Your task to perform on an android device: What is the news today? Image 0: 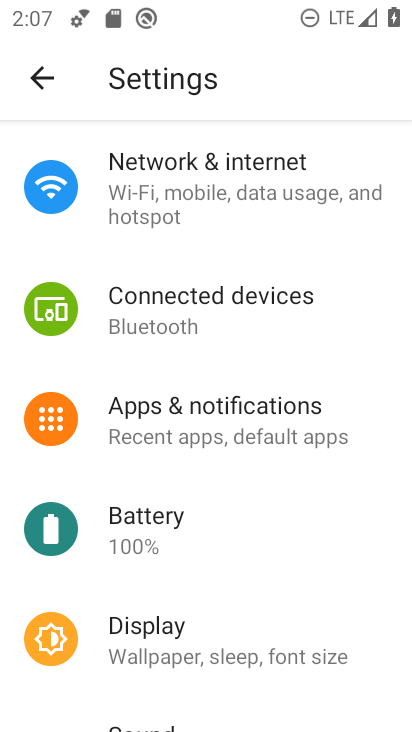
Step 0: press home button
Your task to perform on an android device: What is the news today? Image 1: 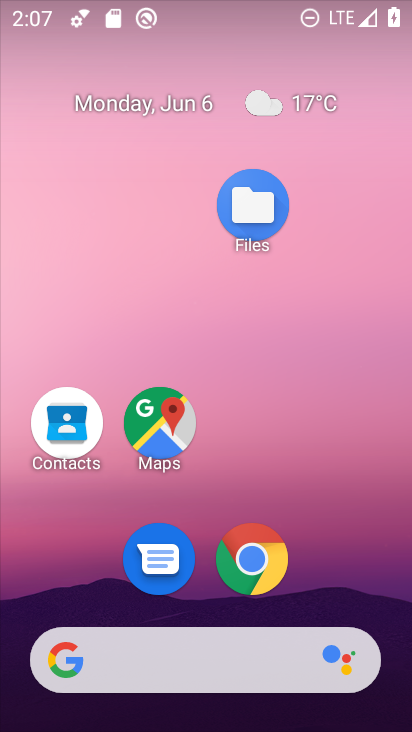
Step 1: drag from (262, 665) to (274, 147)
Your task to perform on an android device: What is the news today? Image 2: 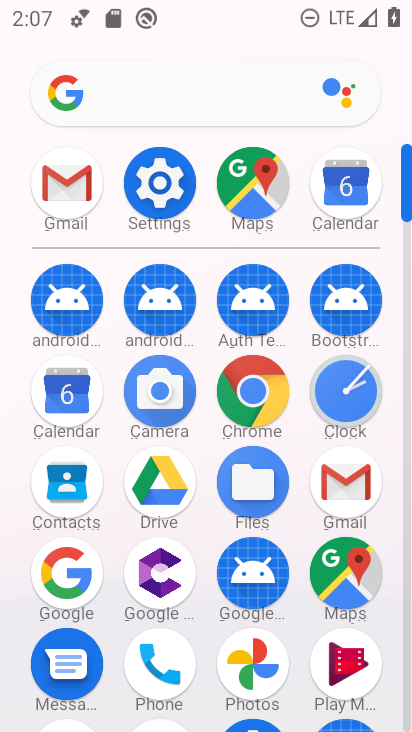
Step 2: click (81, 586)
Your task to perform on an android device: What is the news today? Image 3: 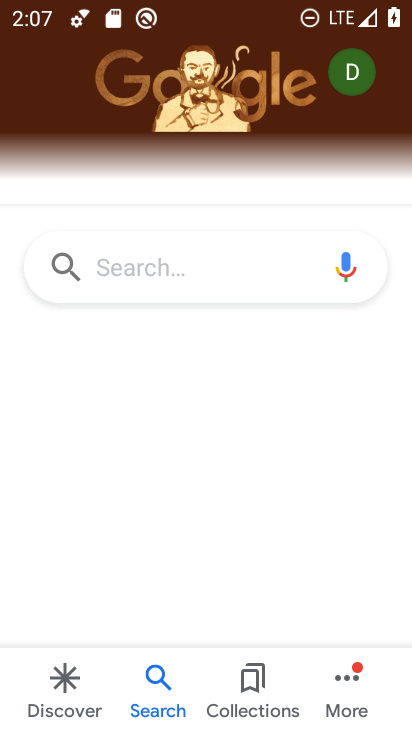
Step 3: click (214, 276)
Your task to perform on an android device: What is the news today? Image 4: 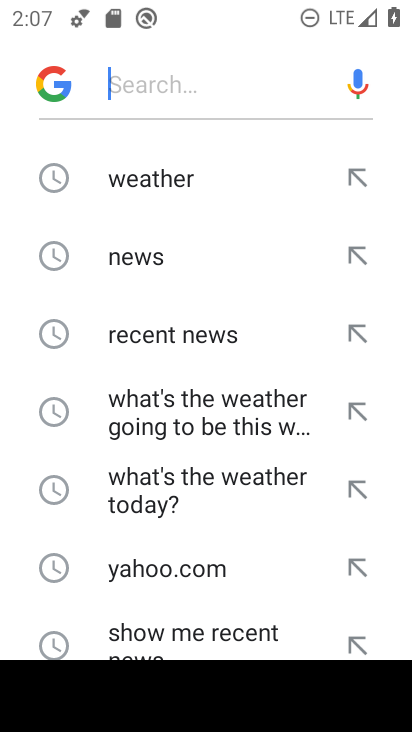
Step 4: click (209, 271)
Your task to perform on an android device: What is the news today? Image 5: 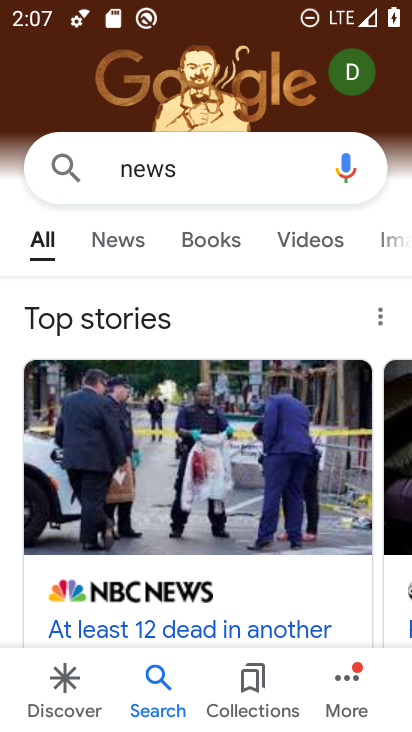
Step 5: click (123, 243)
Your task to perform on an android device: What is the news today? Image 6: 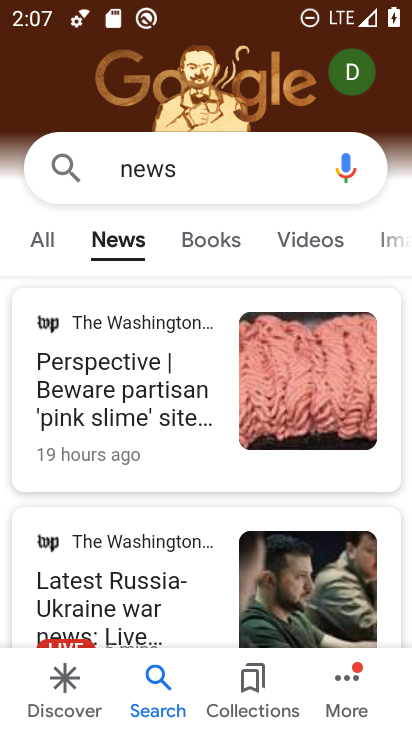
Step 6: task complete